Your task to perform on an android device: Go to notification settings Image 0: 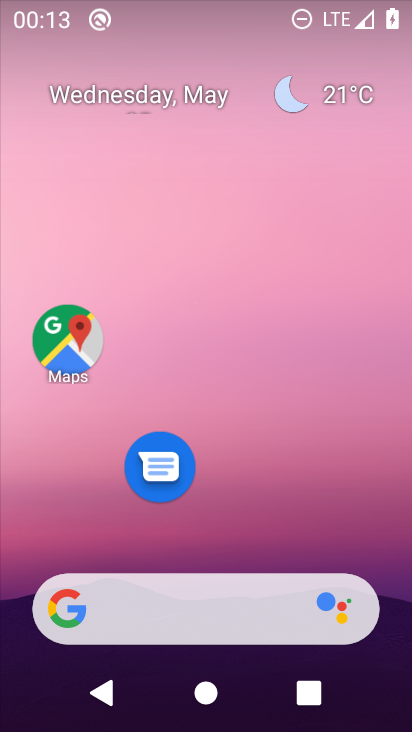
Step 0: drag from (195, 526) to (399, 103)
Your task to perform on an android device: Go to notification settings Image 1: 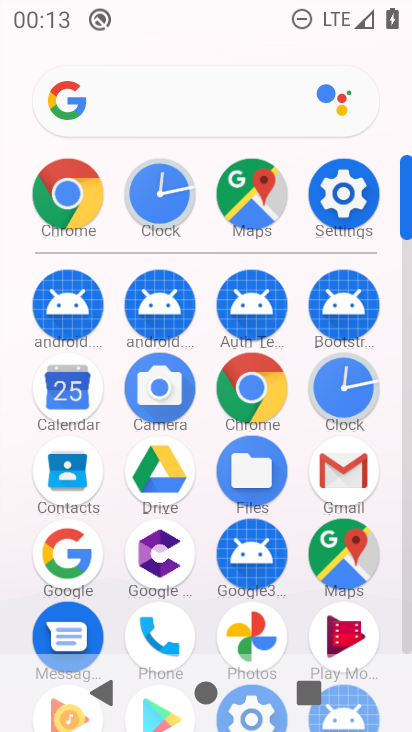
Step 1: click (365, 190)
Your task to perform on an android device: Go to notification settings Image 2: 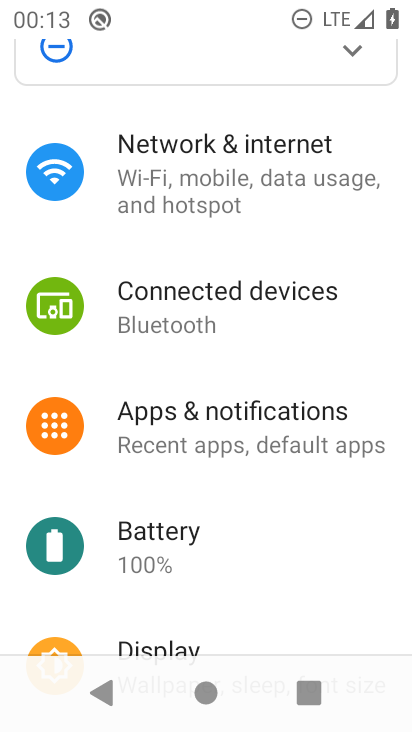
Step 2: click (170, 442)
Your task to perform on an android device: Go to notification settings Image 3: 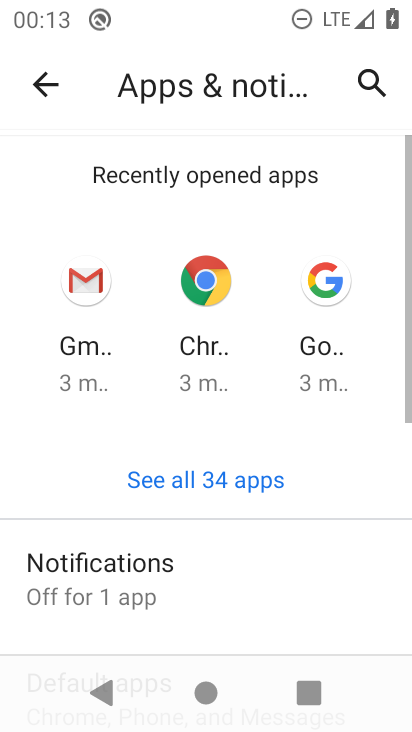
Step 3: drag from (211, 592) to (327, 201)
Your task to perform on an android device: Go to notification settings Image 4: 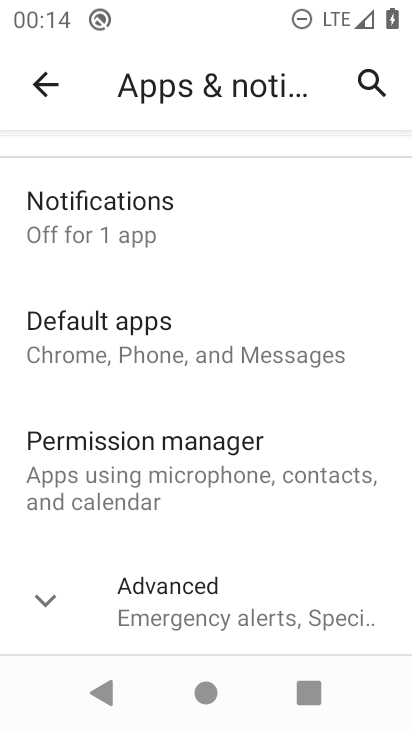
Step 4: click (214, 219)
Your task to perform on an android device: Go to notification settings Image 5: 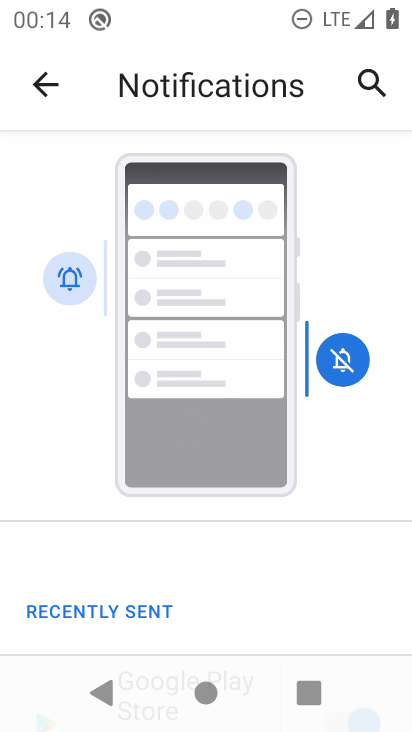
Step 5: drag from (251, 555) to (352, 148)
Your task to perform on an android device: Go to notification settings Image 6: 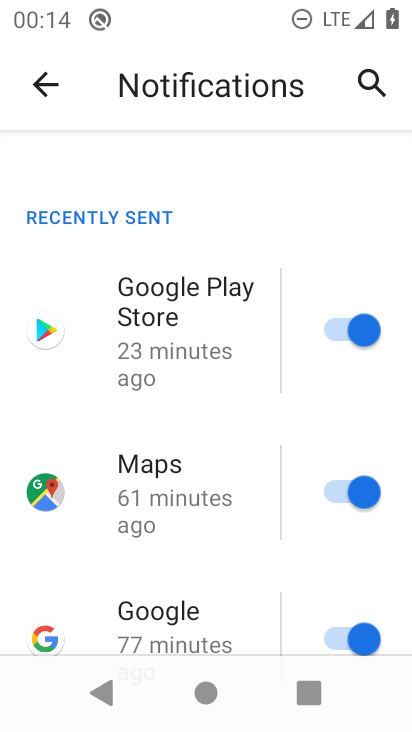
Step 6: click (351, 478)
Your task to perform on an android device: Go to notification settings Image 7: 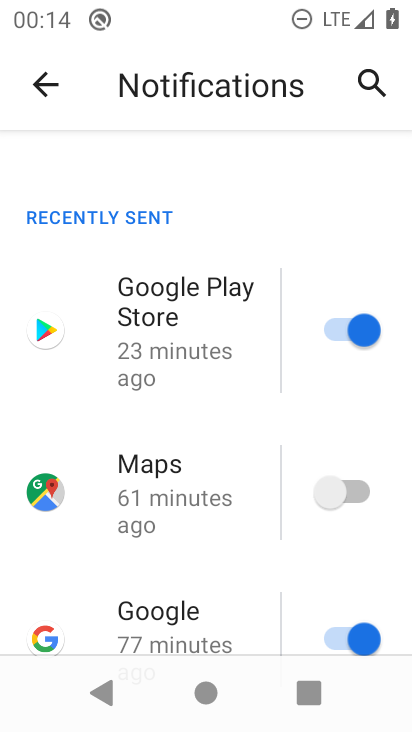
Step 7: task complete